Your task to perform on an android device: What is the recent news? Image 0: 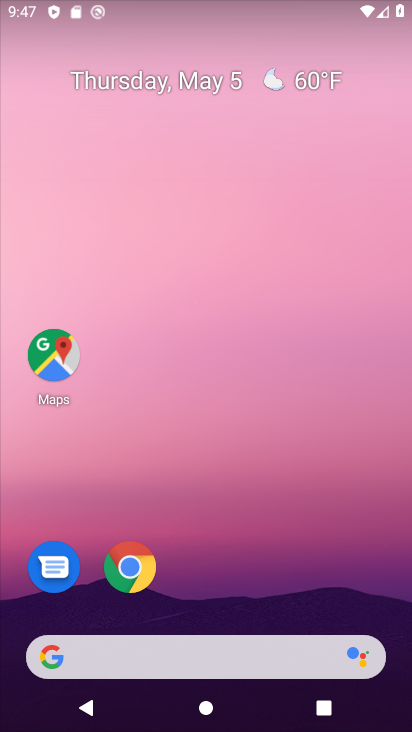
Step 0: drag from (208, 599) to (160, 223)
Your task to perform on an android device: What is the recent news? Image 1: 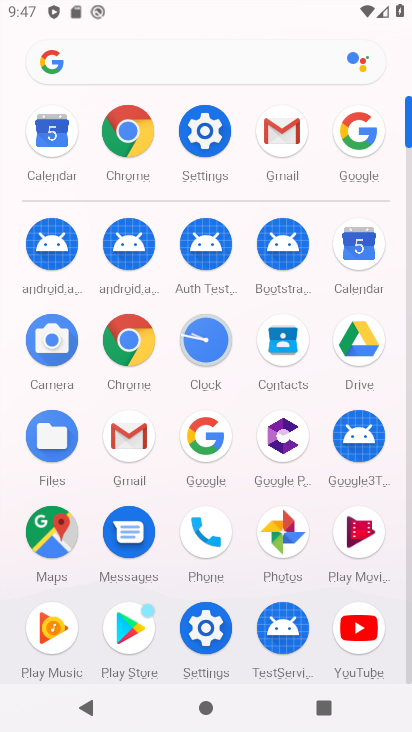
Step 1: click (342, 133)
Your task to perform on an android device: What is the recent news? Image 2: 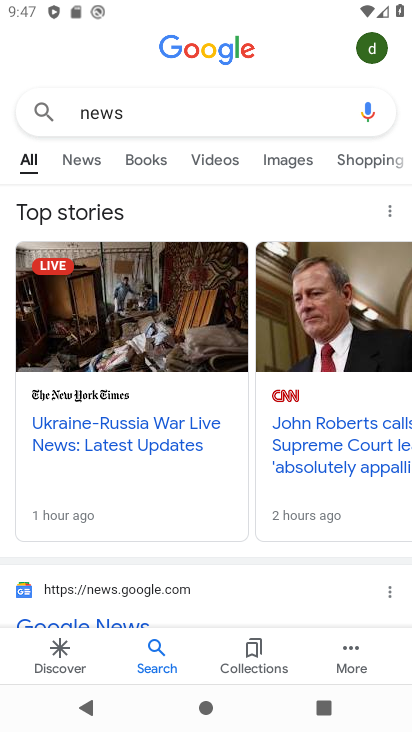
Step 2: click (149, 108)
Your task to perform on an android device: What is the recent news? Image 3: 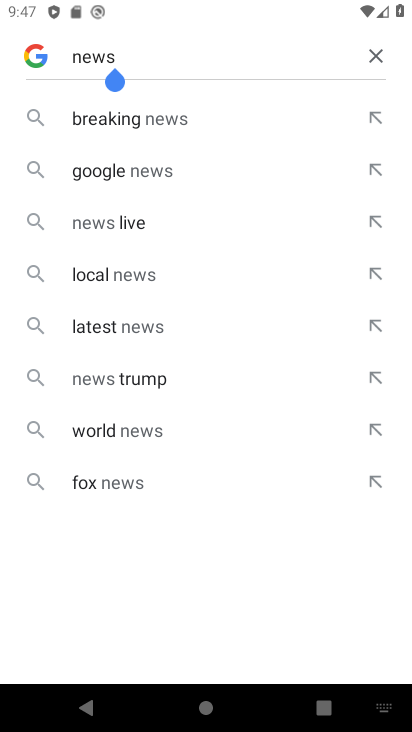
Step 3: click (375, 57)
Your task to perform on an android device: What is the recent news? Image 4: 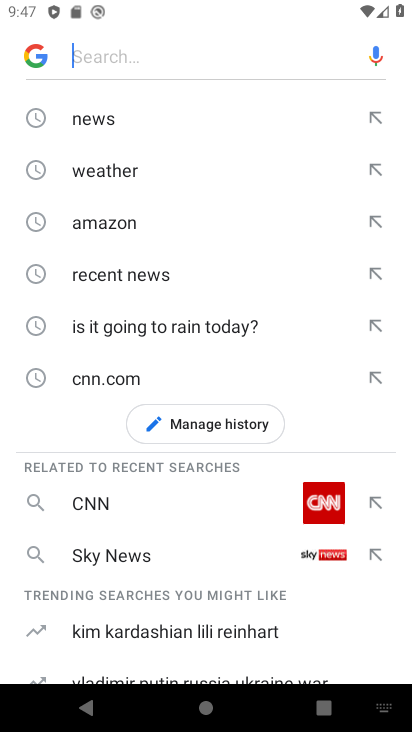
Step 4: click (108, 275)
Your task to perform on an android device: What is the recent news? Image 5: 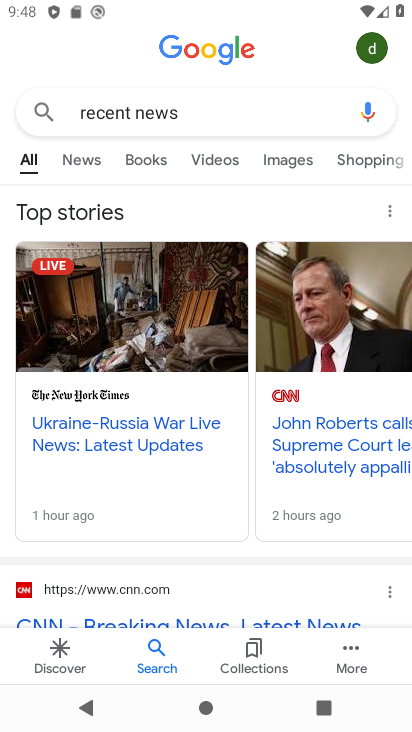
Step 5: task complete